Your task to perform on an android device: set the timer Image 0: 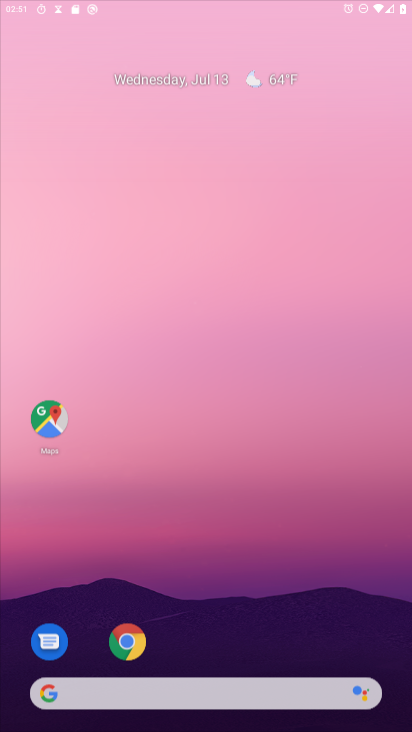
Step 0: press home button
Your task to perform on an android device: set the timer Image 1: 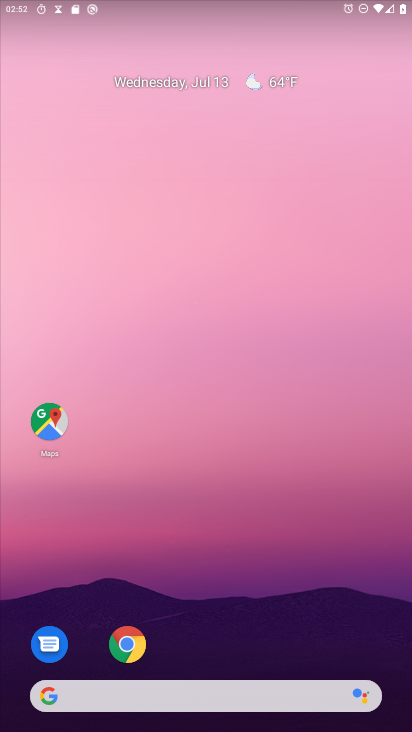
Step 1: press home button
Your task to perform on an android device: set the timer Image 2: 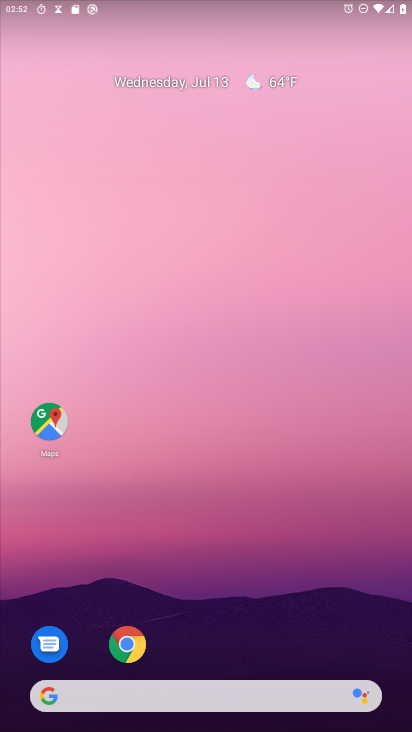
Step 2: drag from (249, 553) to (295, 121)
Your task to perform on an android device: set the timer Image 3: 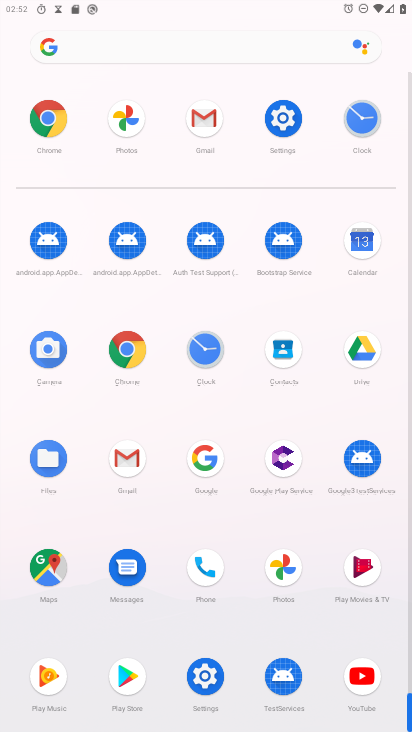
Step 3: click (202, 348)
Your task to perform on an android device: set the timer Image 4: 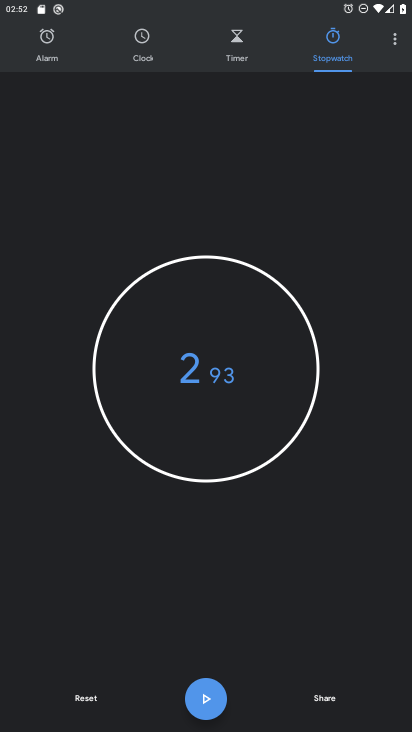
Step 4: click (234, 40)
Your task to perform on an android device: set the timer Image 5: 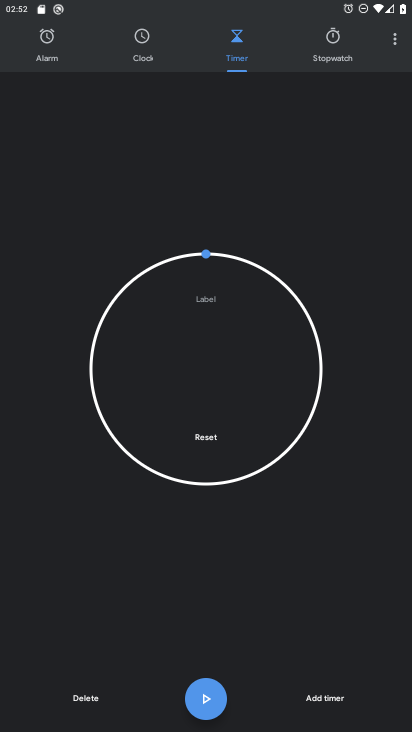
Step 5: click (88, 701)
Your task to perform on an android device: set the timer Image 6: 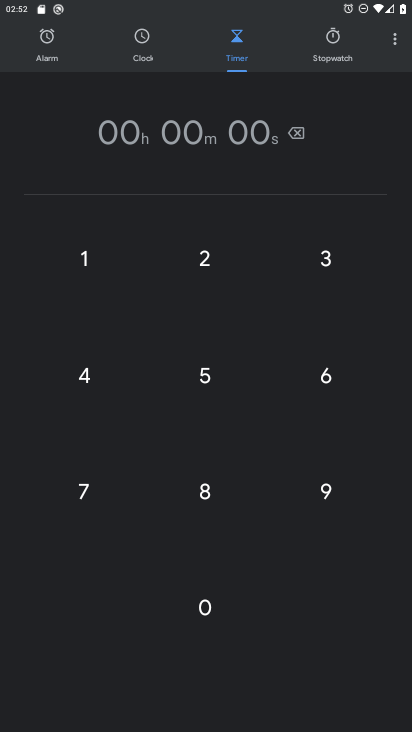
Step 6: click (204, 498)
Your task to perform on an android device: set the timer Image 7: 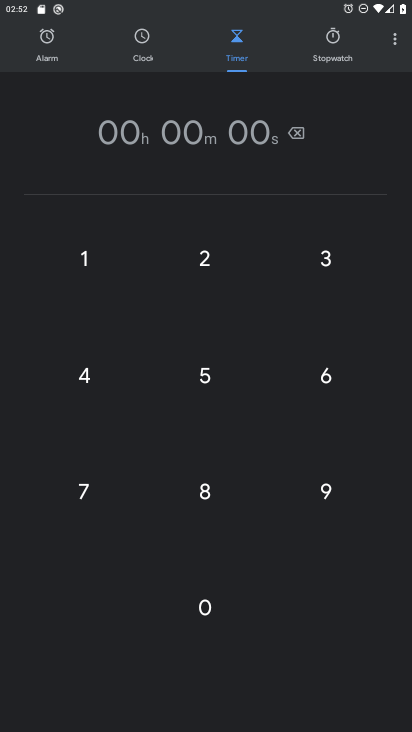
Step 7: click (201, 493)
Your task to perform on an android device: set the timer Image 8: 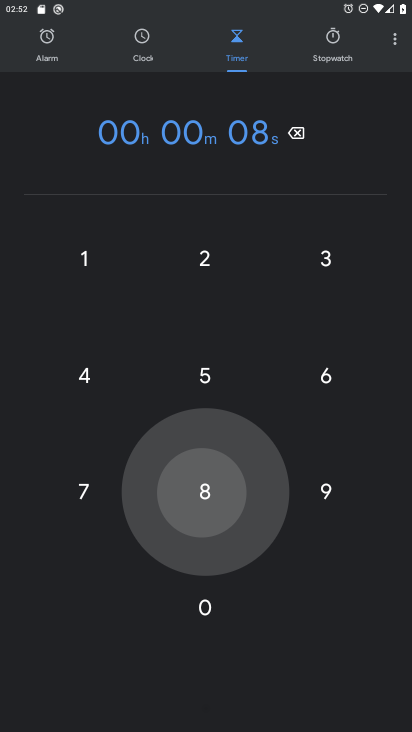
Step 8: click (201, 488)
Your task to perform on an android device: set the timer Image 9: 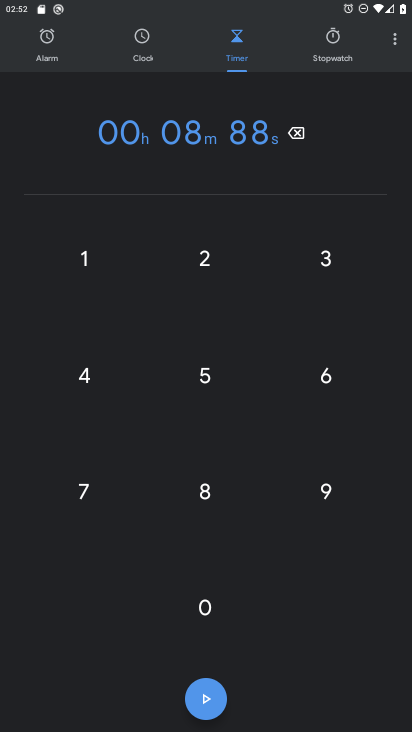
Step 9: click (205, 372)
Your task to perform on an android device: set the timer Image 10: 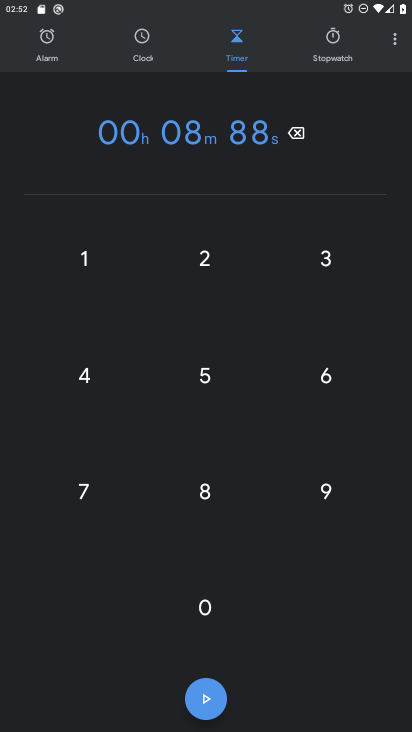
Step 10: click (203, 374)
Your task to perform on an android device: set the timer Image 11: 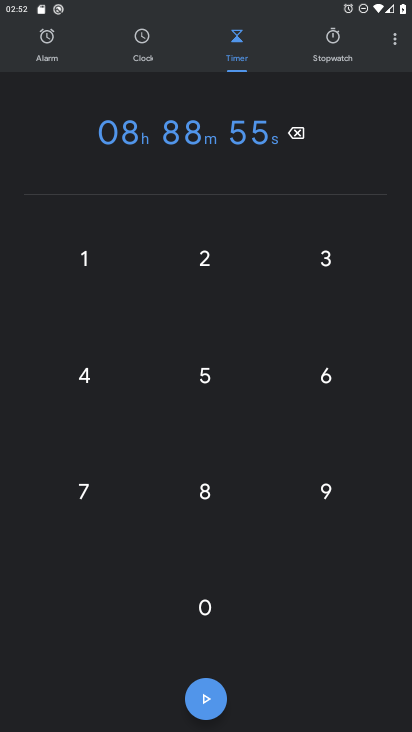
Step 11: click (196, 368)
Your task to perform on an android device: set the timer Image 12: 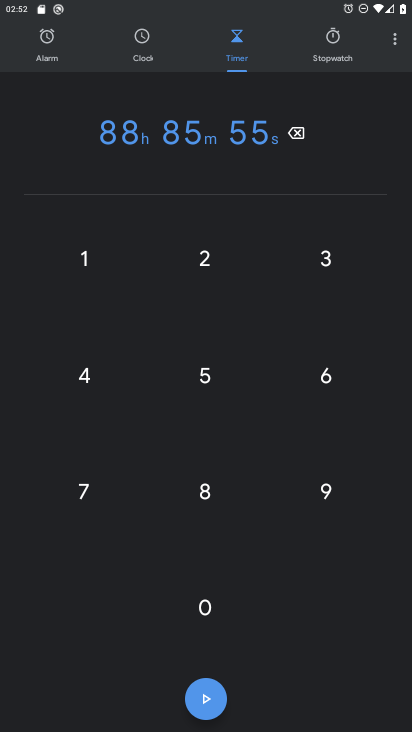
Step 12: click (210, 700)
Your task to perform on an android device: set the timer Image 13: 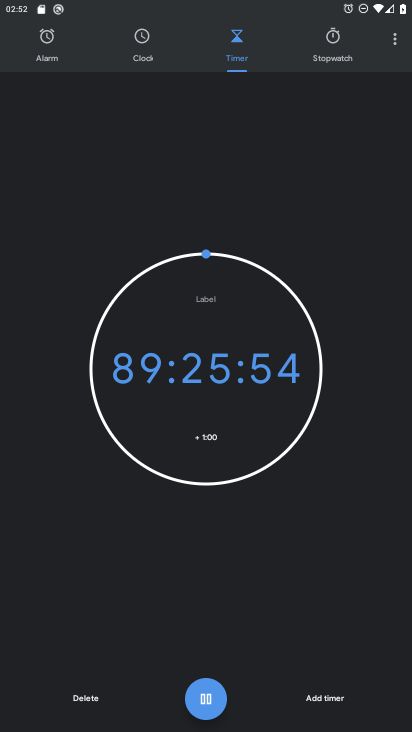
Step 13: task complete